Your task to perform on an android device: Search for vintage wall art on Etsy. Image 0: 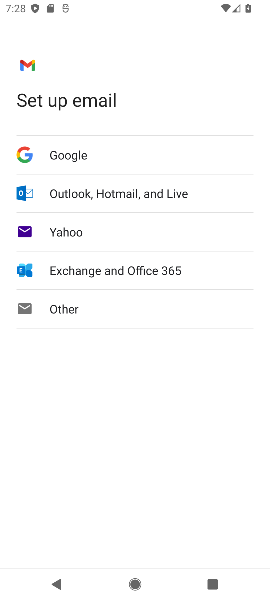
Step 0: press home button
Your task to perform on an android device: Search for vintage wall art on Etsy. Image 1: 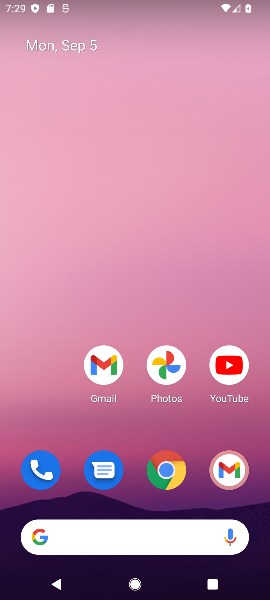
Step 1: click (88, 528)
Your task to perform on an android device: Search for vintage wall art on Etsy. Image 2: 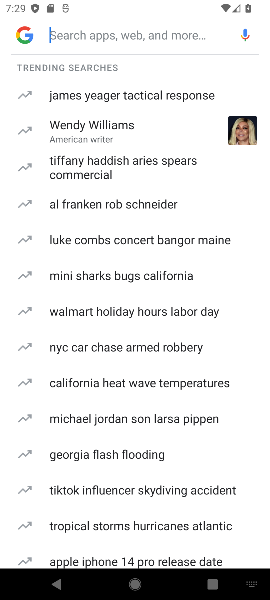
Step 2: type "etsy"
Your task to perform on an android device: Search for vintage wall art on Etsy. Image 3: 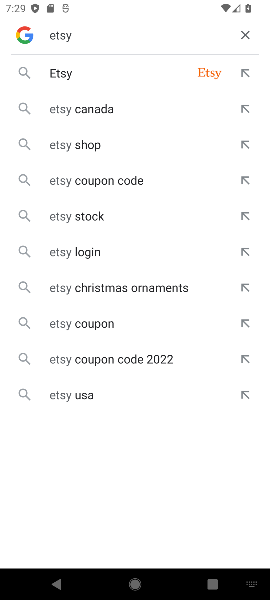
Step 3: click (67, 73)
Your task to perform on an android device: Search for vintage wall art on Etsy. Image 4: 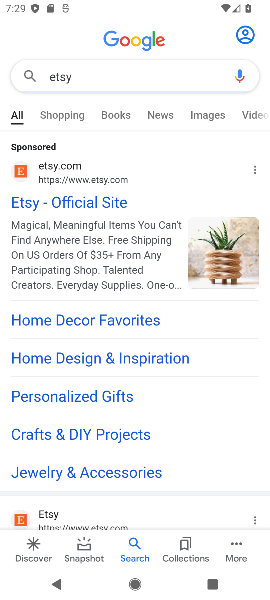
Step 4: click (57, 199)
Your task to perform on an android device: Search for vintage wall art on Etsy. Image 5: 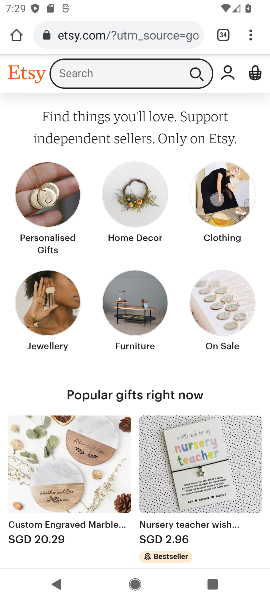
Step 5: click (138, 71)
Your task to perform on an android device: Search for vintage wall art on Etsy. Image 6: 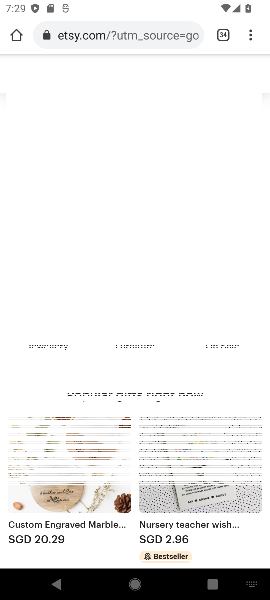
Step 6: type "vintage wall"
Your task to perform on an android device: Search for vintage wall art on Etsy. Image 7: 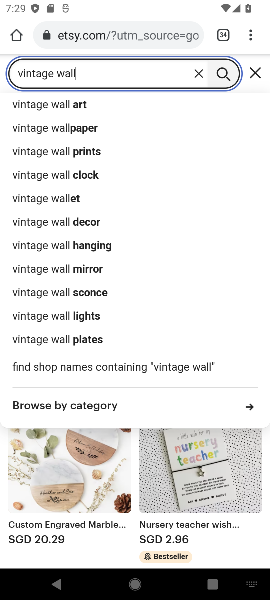
Step 7: click (92, 106)
Your task to perform on an android device: Search for vintage wall art on Etsy. Image 8: 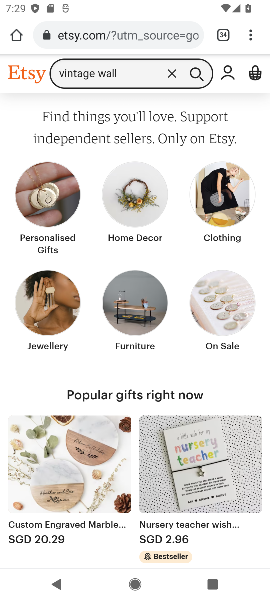
Step 8: task complete